Your task to perform on an android device: Do I have any events this weekend? Image 0: 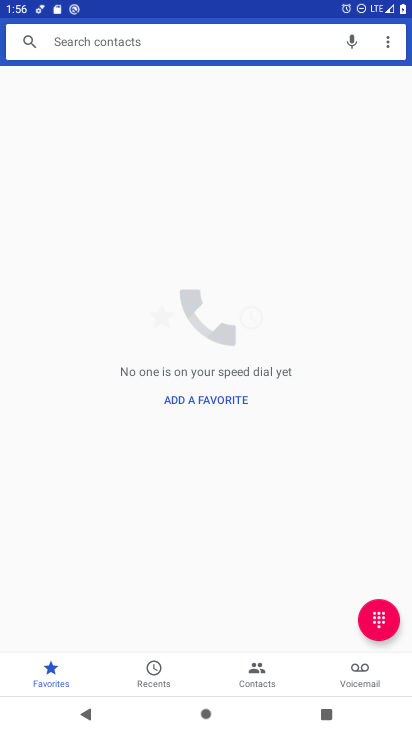
Step 0: press home button
Your task to perform on an android device: Do I have any events this weekend? Image 1: 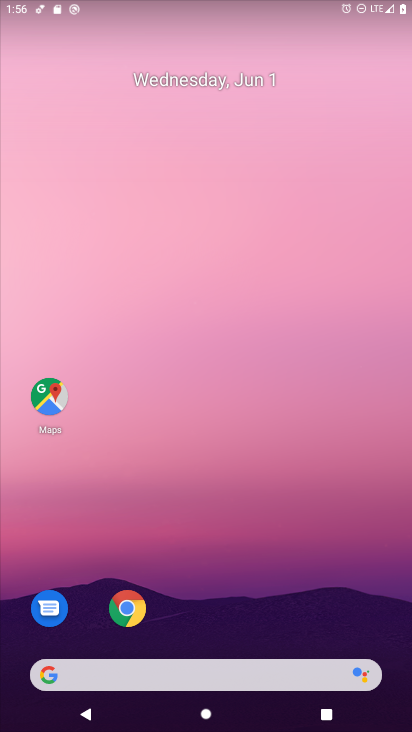
Step 1: drag from (172, 625) to (227, 130)
Your task to perform on an android device: Do I have any events this weekend? Image 2: 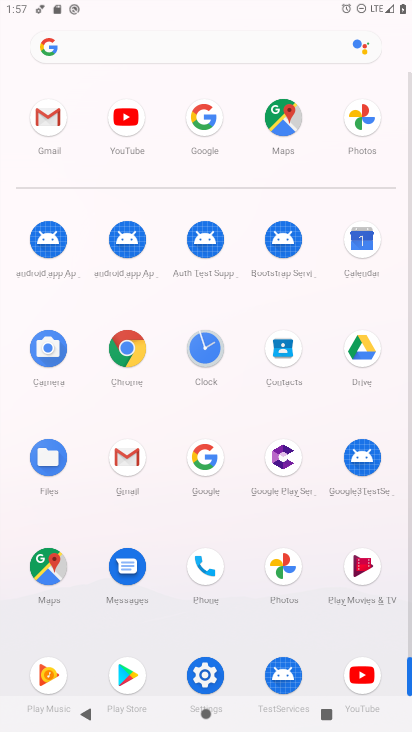
Step 2: drag from (222, 560) to (192, 320)
Your task to perform on an android device: Do I have any events this weekend? Image 3: 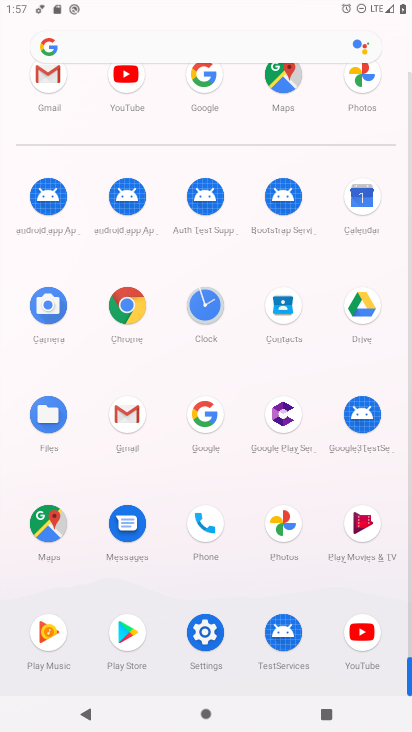
Step 3: drag from (170, 267) to (193, 531)
Your task to perform on an android device: Do I have any events this weekend? Image 4: 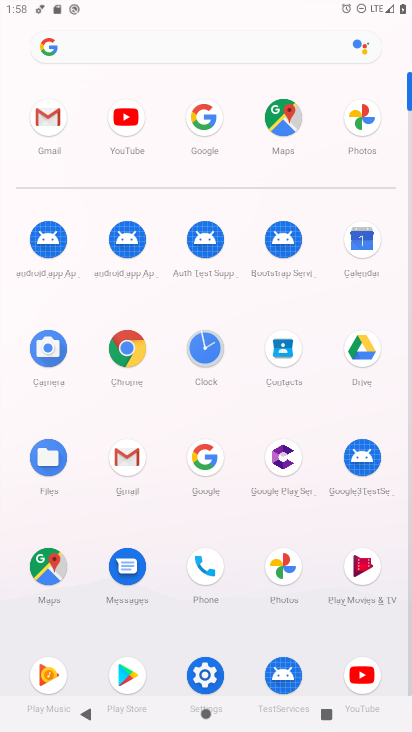
Step 4: drag from (116, 649) to (110, 521)
Your task to perform on an android device: Do I have any events this weekend? Image 5: 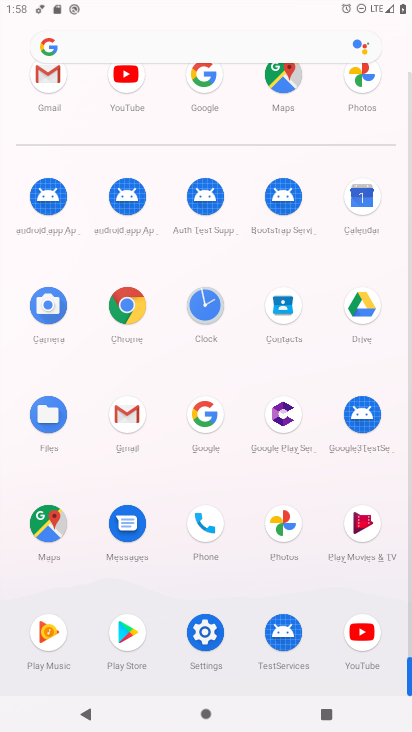
Step 5: drag from (208, 548) to (164, 160)
Your task to perform on an android device: Do I have any events this weekend? Image 6: 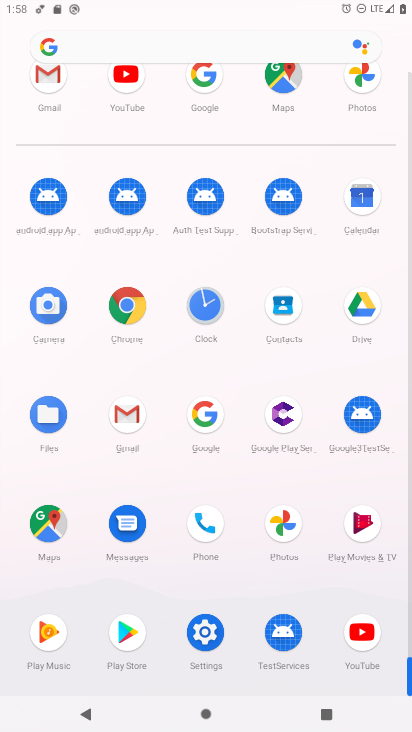
Step 6: click (198, 645)
Your task to perform on an android device: Do I have any events this weekend? Image 7: 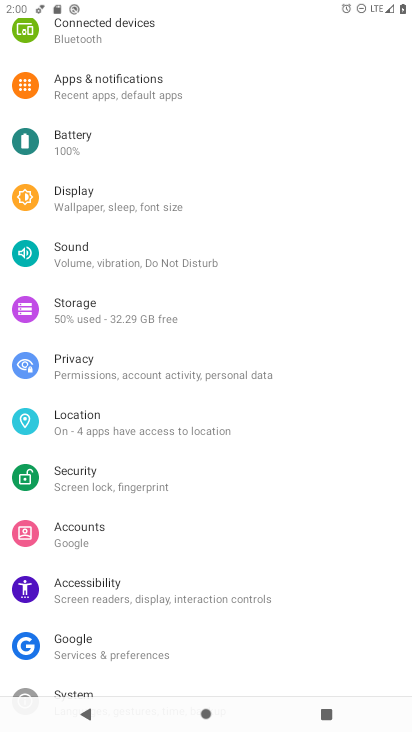
Step 7: drag from (169, 618) to (211, 302)
Your task to perform on an android device: Do I have any events this weekend? Image 8: 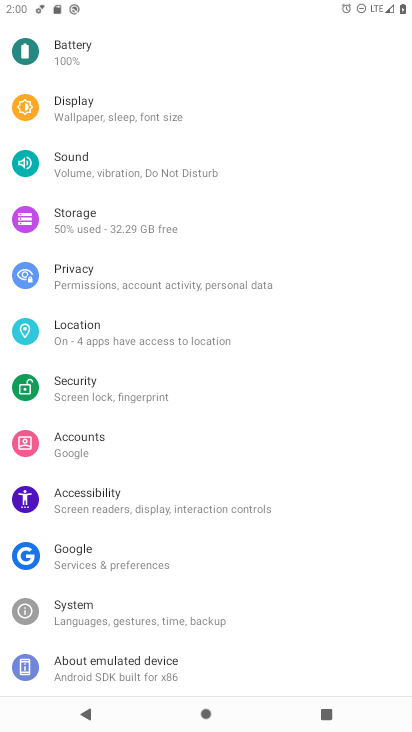
Step 8: press back button
Your task to perform on an android device: Do I have any events this weekend? Image 9: 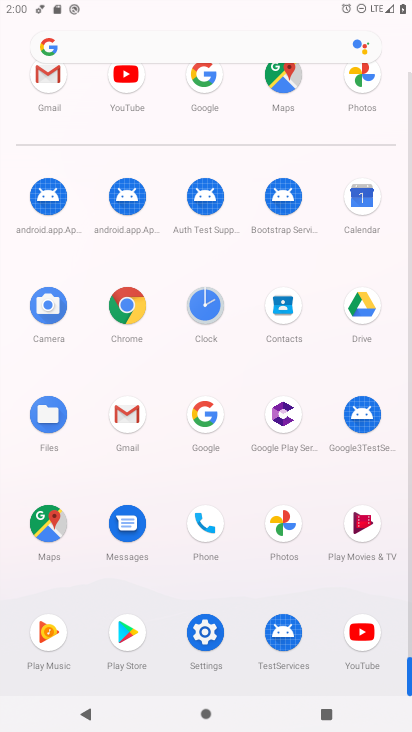
Step 9: drag from (299, 203) to (234, 371)
Your task to perform on an android device: Do I have any events this weekend? Image 10: 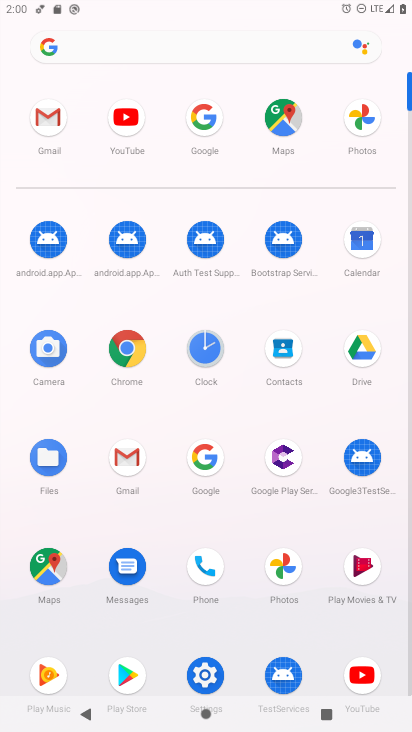
Step 10: click (360, 270)
Your task to perform on an android device: Do I have any events this weekend? Image 11: 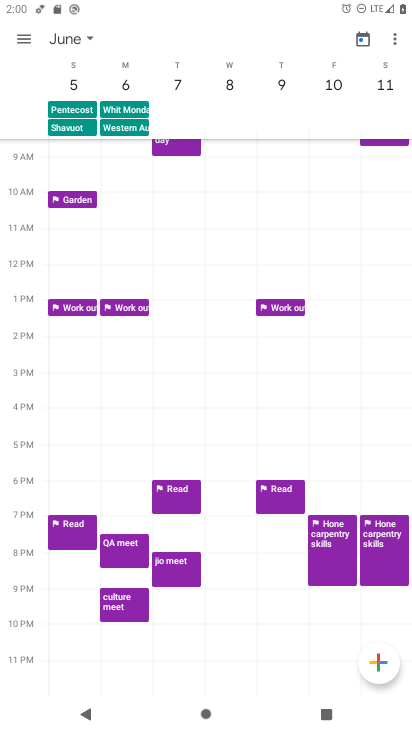
Step 11: click (76, 43)
Your task to perform on an android device: Do I have any events this weekend? Image 12: 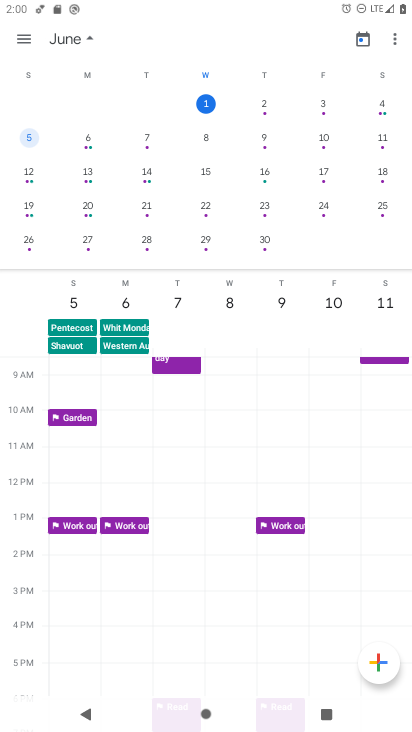
Step 12: drag from (200, 160) to (12, 73)
Your task to perform on an android device: Do I have any events this weekend? Image 13: 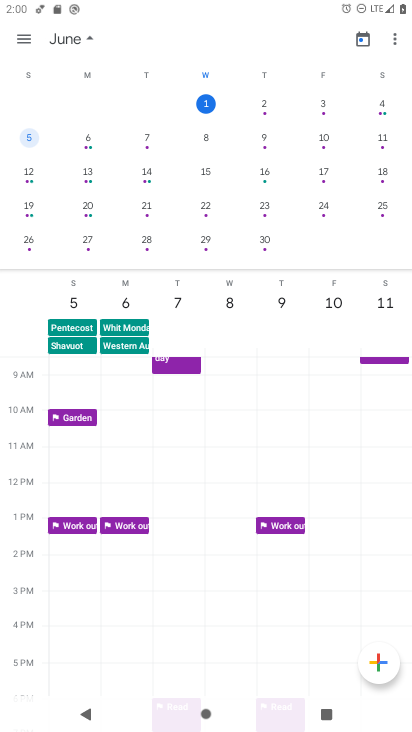
Step 13: drag from (121, 159) to (364, 177)
Your task to perform on an android device: Do I have any events this weekend? Image 14: 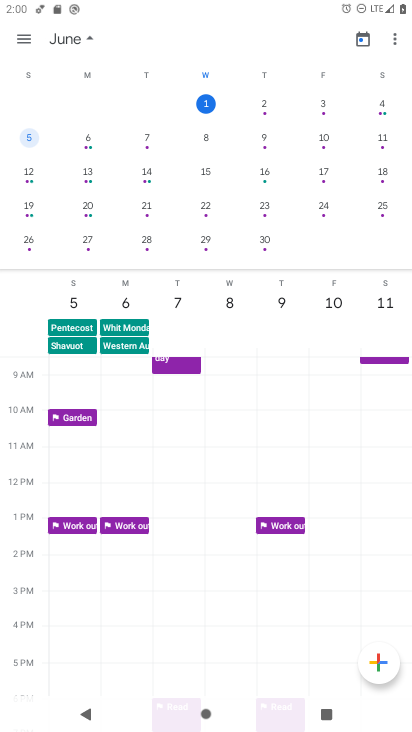
Step 14: drag from (94, 155) to (381, 186)
Your task to perform on an android device: Do I have any events this weekend? Image 15: 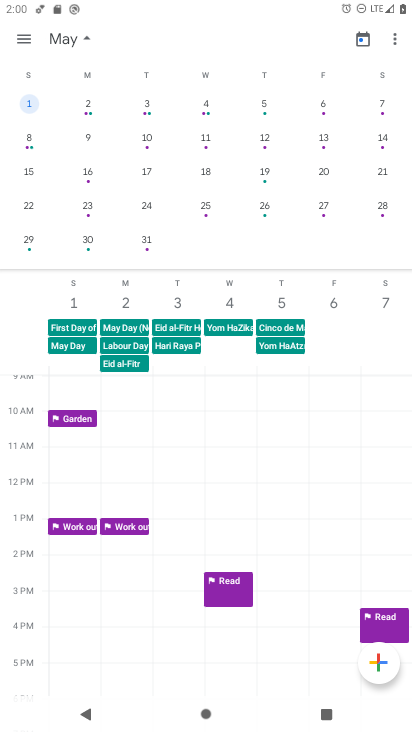
Step 15: drag from (323, 171) to (69, 113)
Your task to perform on an android device: Do I have any events this weekend? Image 16: 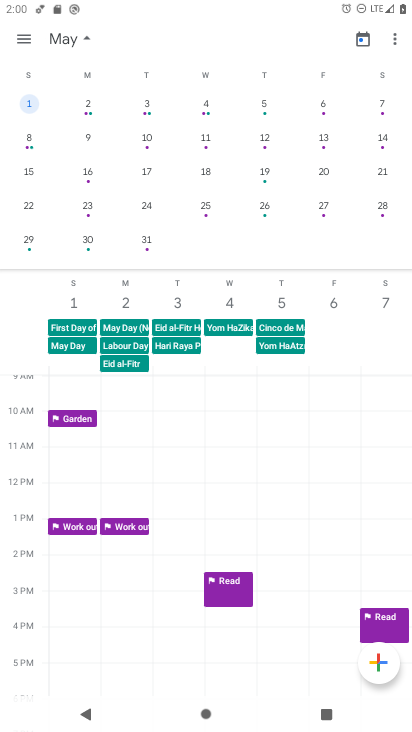
Step 16: click (72, 33)
Your task to perform on an android device: Do I have any events this weekend? Image 17: 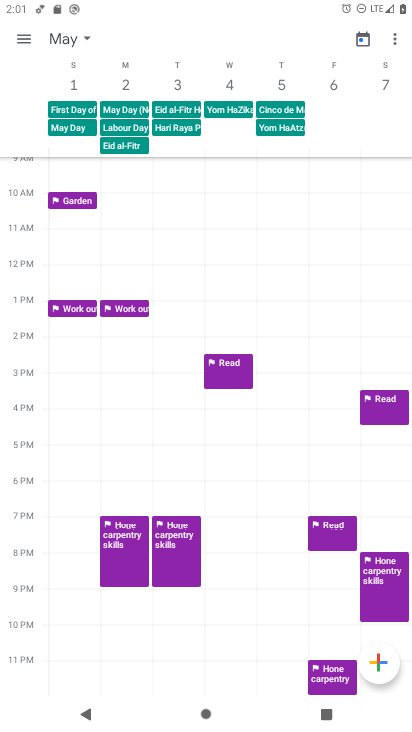
Step 17: click (33, 35)
Your task to perform on an android device: Do I have any events this weekend? Image 18: 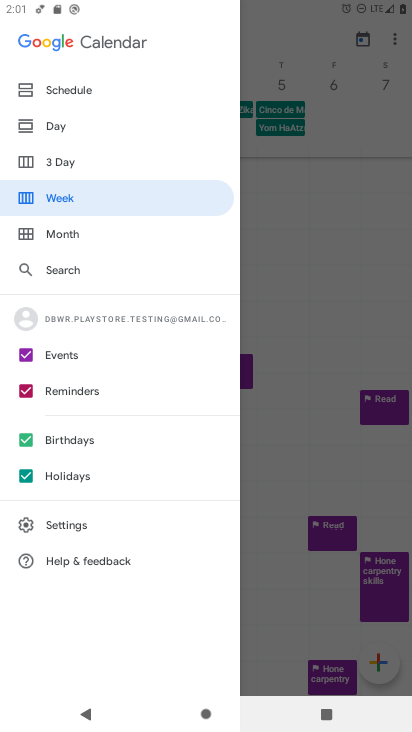
Step 18: click (63, 203)
Your task to perform on an android device: Do I have any events this weekend? Image 19: 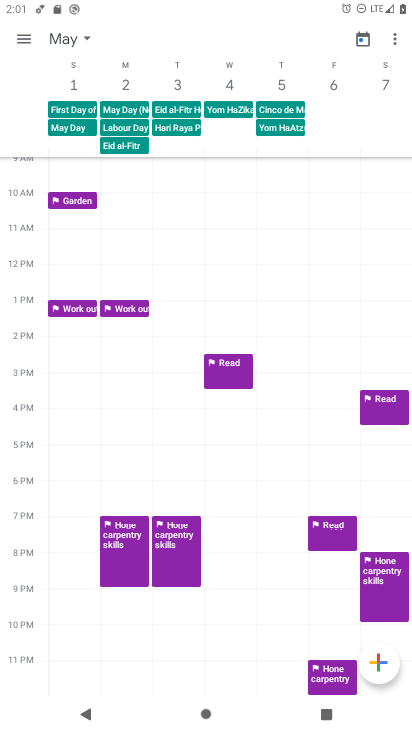
Step 19: click (56, 40)
Your task to perform on an android device: Do I have any events this weekend? Image 20: 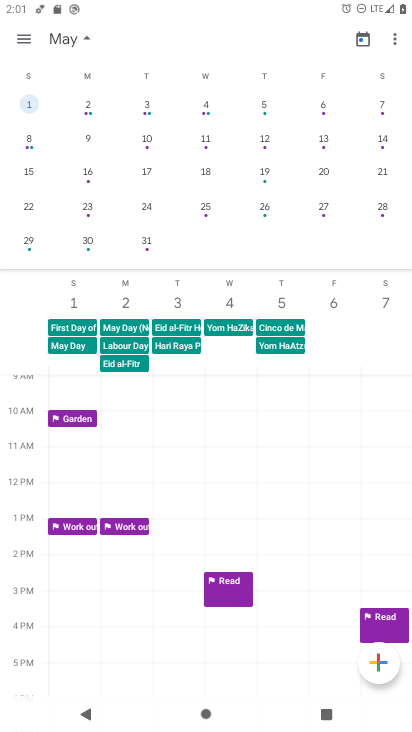
Step 20: click (19, 245)
Your task to perform on an android device: Do I have any events this weekend? Image 21: 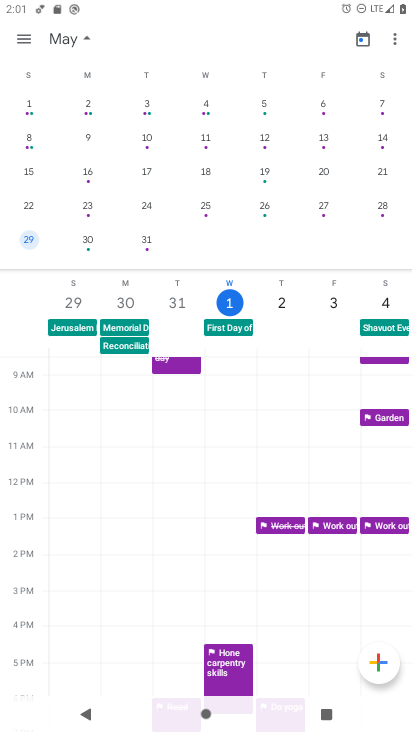
Step 21: click (31, 246)
Your task to perform on an android device: Do I have any events this weekend? Image 22: 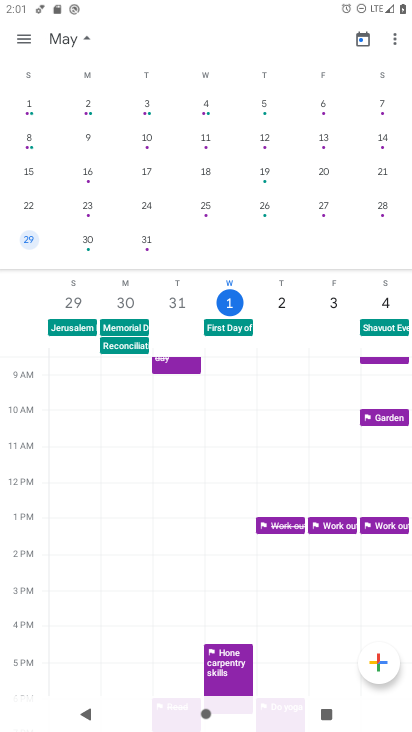
Step 22: task complete